Your task to perform on an android device: open app "Microsoft Outlook" (install if not already installed) Image 0: 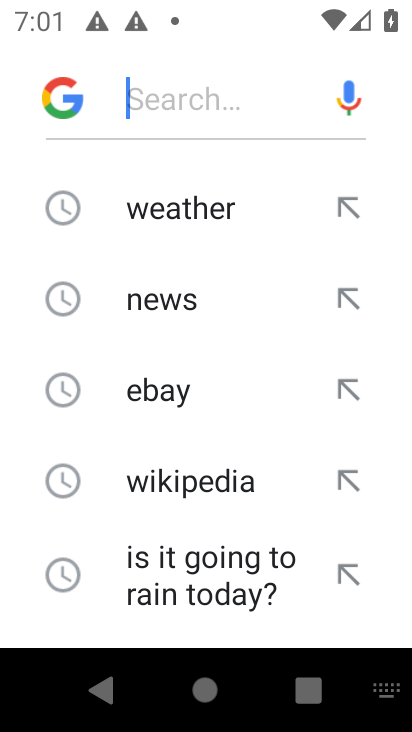
Step 0: press home button
Your task to perform on an android device: open app "Microsoft Outlook" (install if not already installed) Image 1: 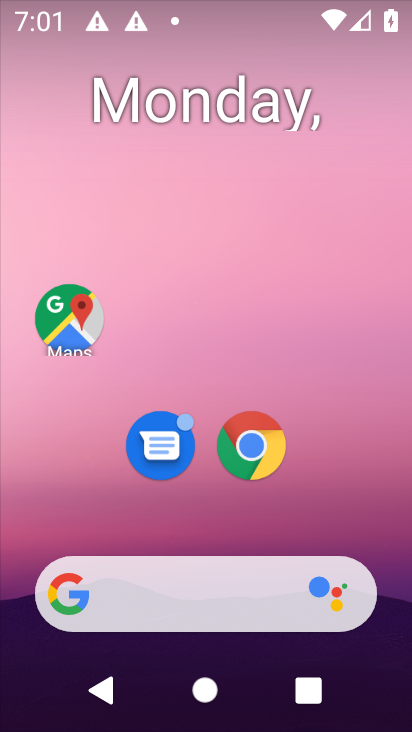
Step 1: drag from (383, 591) to (221, 98)
Your task to perform on an android device: open app "Microsoft Outlook" (install if not already installed) Image 2: 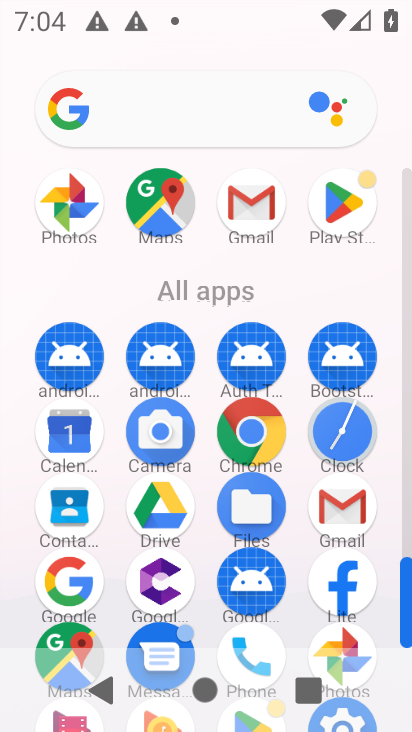
Step 2: click (340, 201)
Your task to perform on an android device: open app "Microsoft Outlook" (install if not already installed) Image 3: 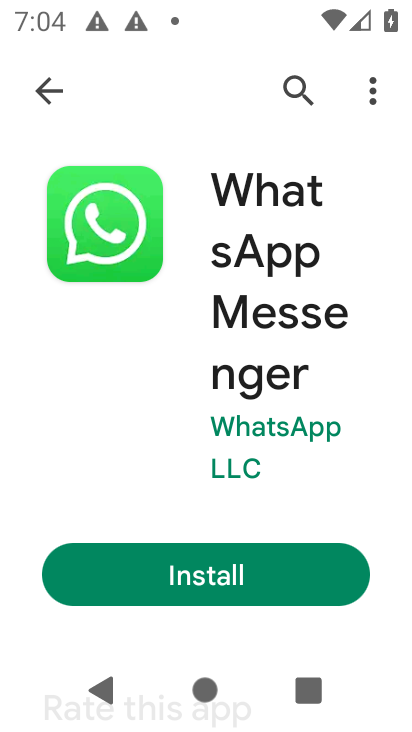
Step 3: press back button
Your task to perform on an android device: open app "Microsoft Outlook" (install if not already installed) Image 4: 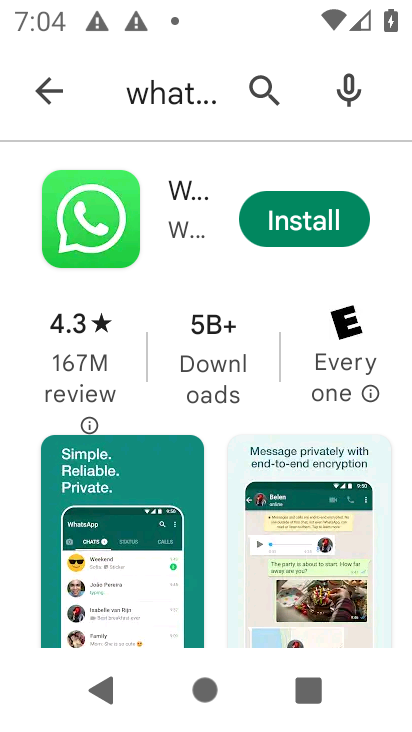
Step 4: press back button
Your task to perform on an android device: open app "Microsoft Outlook" (install if not already installed) Image 5: 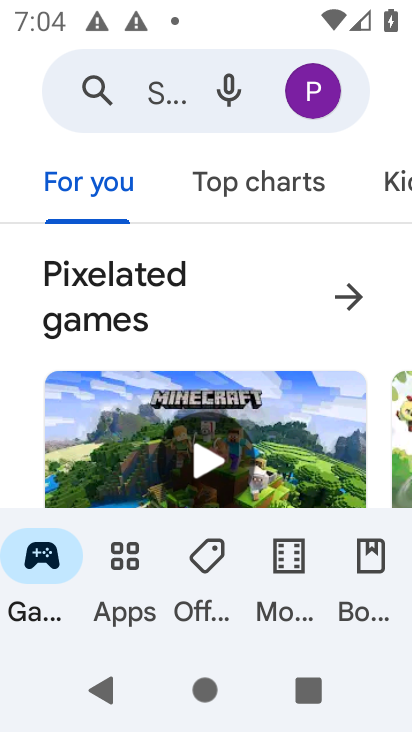
Step 5: click (145, 76)
Your task to perform on an android device: open app "Microsoft Outlook" (install if not already installed) Image 6: 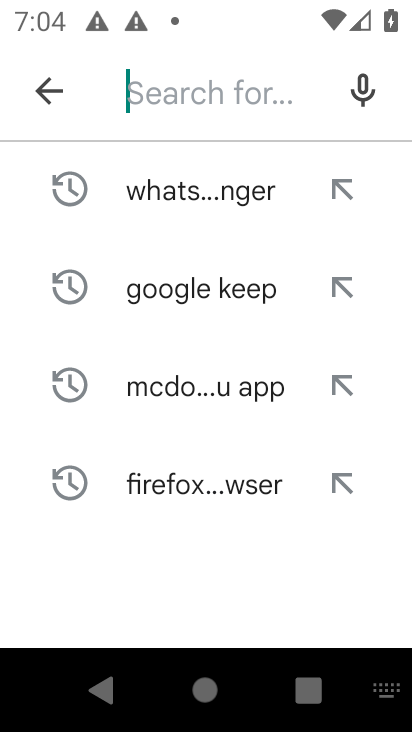
Step 6: type "Microsoft Outlook"
Your task to perform on an android device: open app "Microsoft Outlook" (install if not already installed) Image 7: 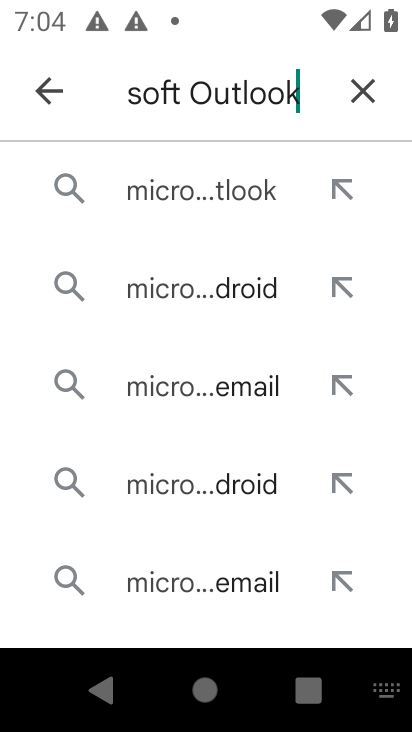
Step 7: click (164, 193)
Your task to perform on an android device: open app "Microsoft Outlook" (install if not already installed) Image 8: 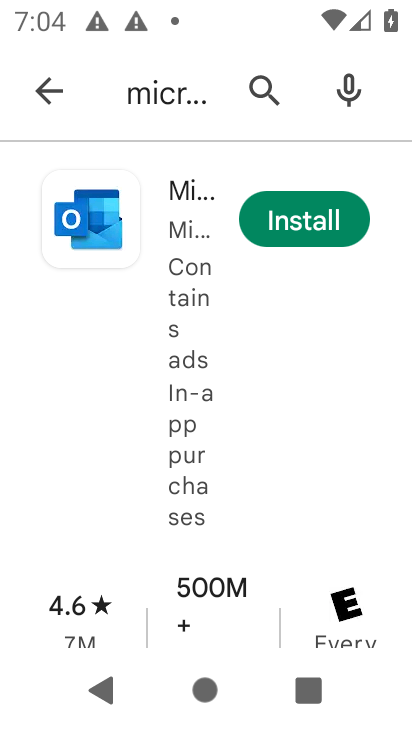
Step 8: task complete